Your task to perform on an android device: clear all cookies in the chrome app Image 0: 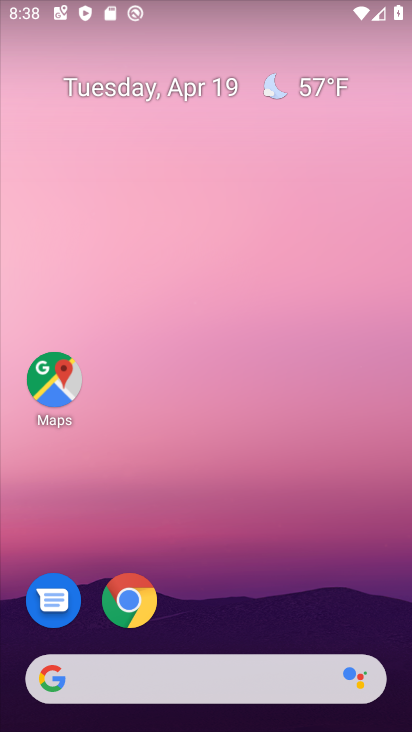
Step 0: drag from (372, 605) to (368, 107)
Your task to perform on an android device: clear all cookies in the chrome app Image 1: 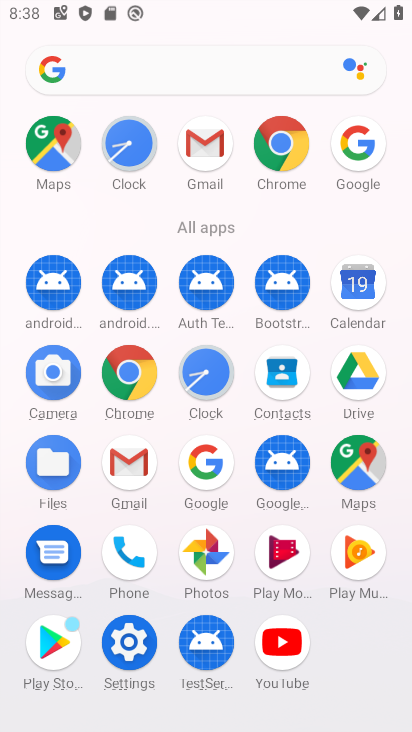
Step 1: click (279, 150)
Your task to perform on an android device: clear all cookies in the chrome app Image 2: 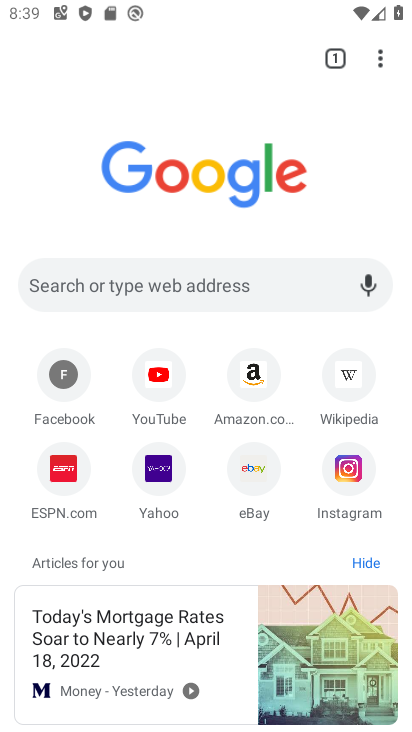
Step 2: click (380, 62)
Your task to perform on an android device: clear all cookies in the chrome app Image 3: 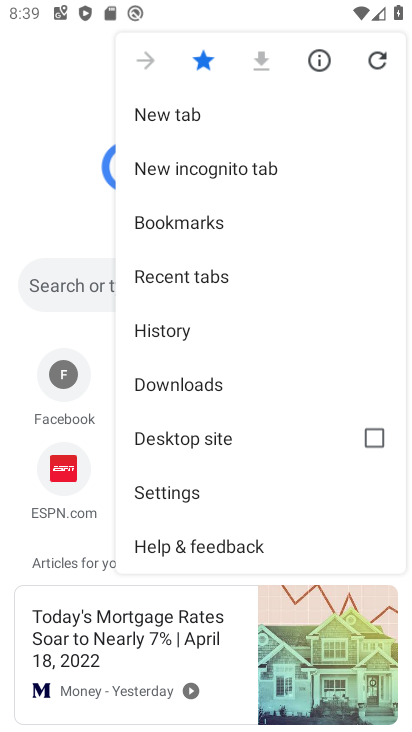
Step 3: click (176, 494)
Your task to perform on an android device: clear all cookies in the chrome app Image 4: 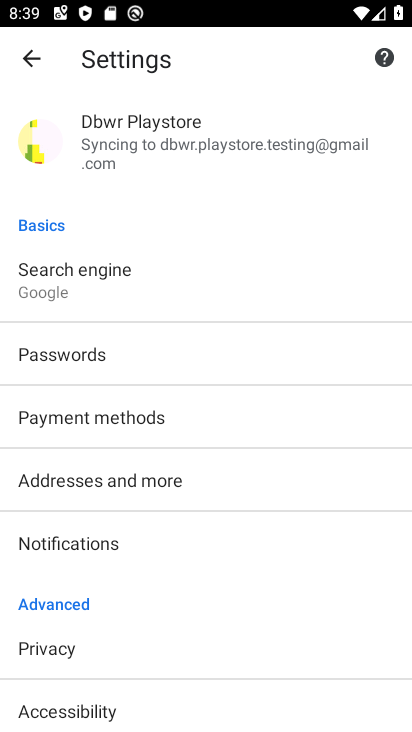
Step 4: drag from (277, 579) to (323, 273)
Your task to perform on an android device: clear all cookies in the chrome app Image 5: 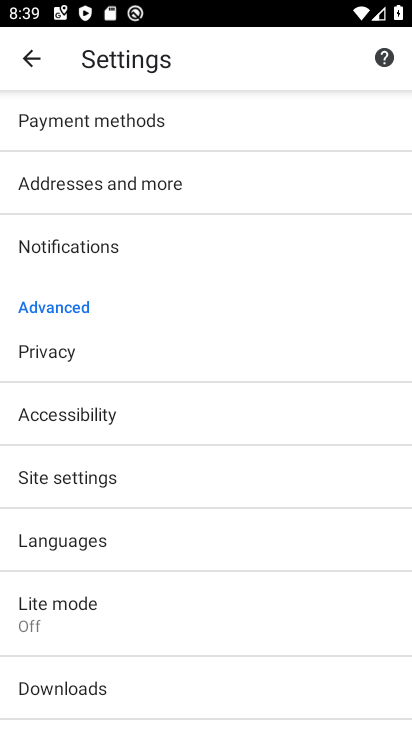
Step 5: click (103, 355)
Your task to perform on an android device: clear all cookies in the chrome app Image 6: 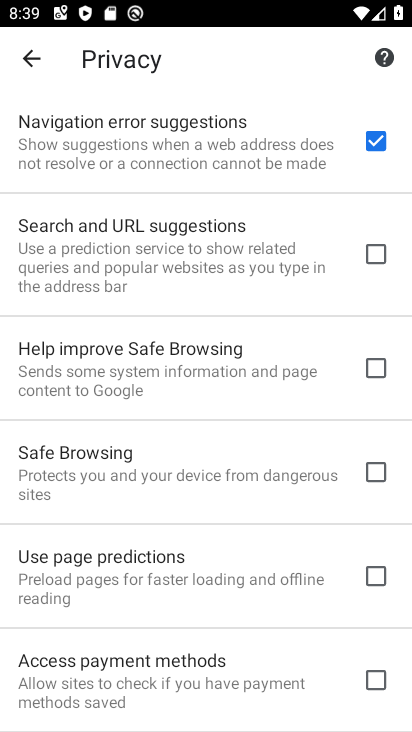
Step 6: drag from (299, 585) to (276, 390)
Your task to perform on an android device: clear all cookies in the chrome app Image 7: 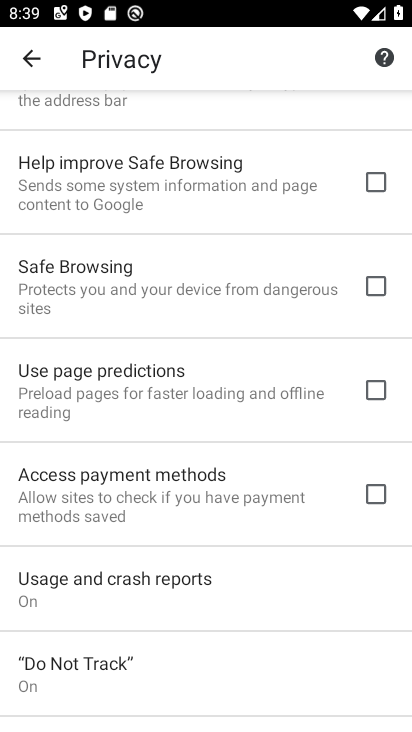
Step 7: drag from (286, 612) to (297, 358)
Your task to perform on an android device: clear all cookies in the chrome app Image 8: 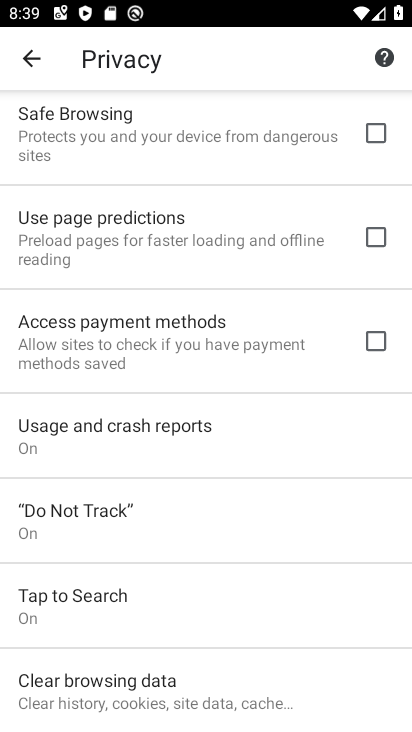
Step 8: click (181, 690)
Your task to perform on an android device: clear all cookies in the chrome app Image 9: 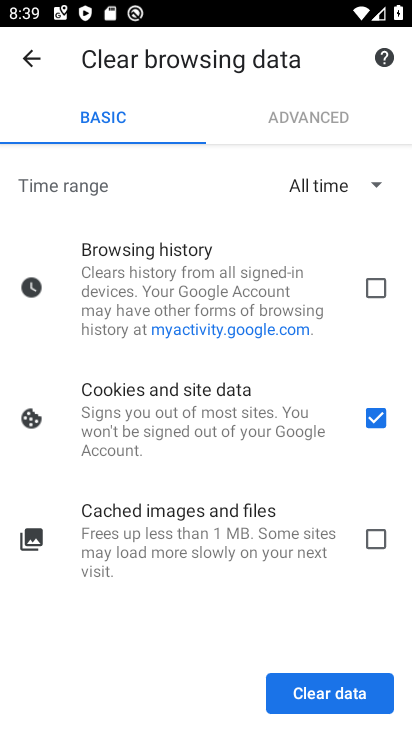
Step 9: click (315, 698)
Your task to perform on an android device: clear all cookies in the chrome app Image 10: 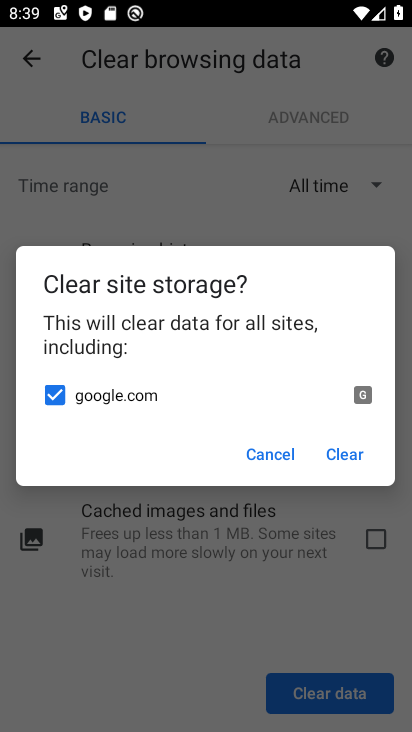
Step 10: click (358, 454)
Your task to perform on an android device: clear all cookies in the chrome app Image 11: 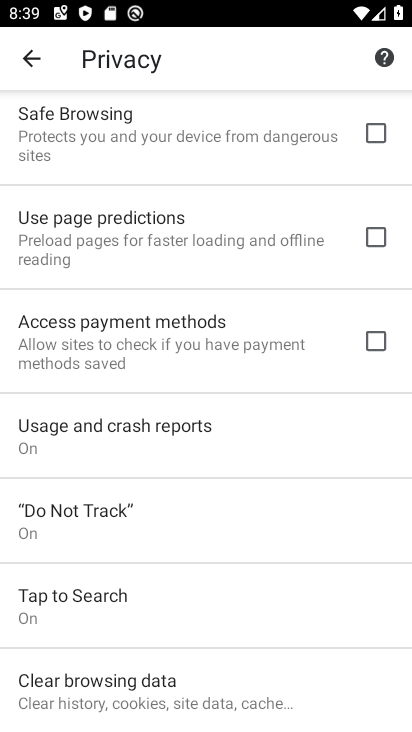
Step 11: task complete